Your task to perform on an android device: turn off smart reply in the gmail app Image 0: 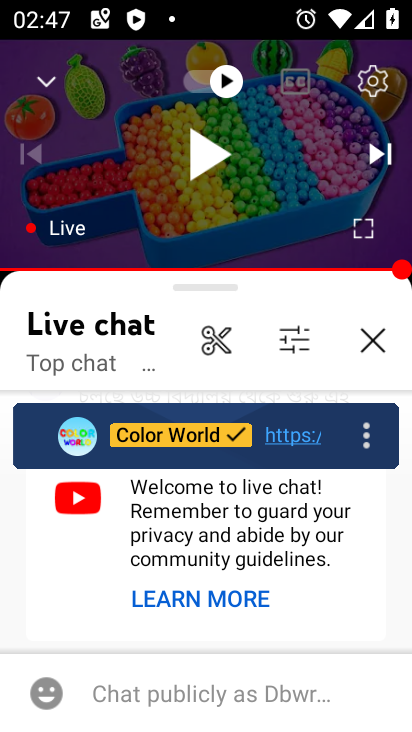
Step 0: click (370, 340)
Your task to perform on an android device: turn off smart reply in the gmail app Image 1: 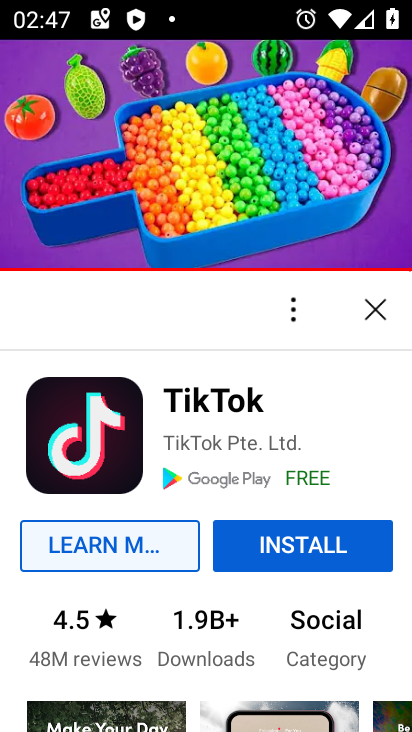
Step 1: press home button
Your task to perform on an android device: turn off smart reply in the gmail app Image 2: 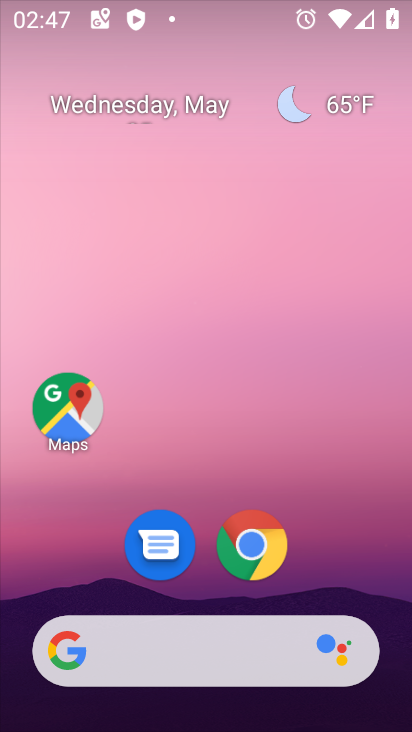
Step 2: drag from (353, 548) to (231, 65)
Your task to perform on an android device: turn off smart reply in the gmail app Image 3: 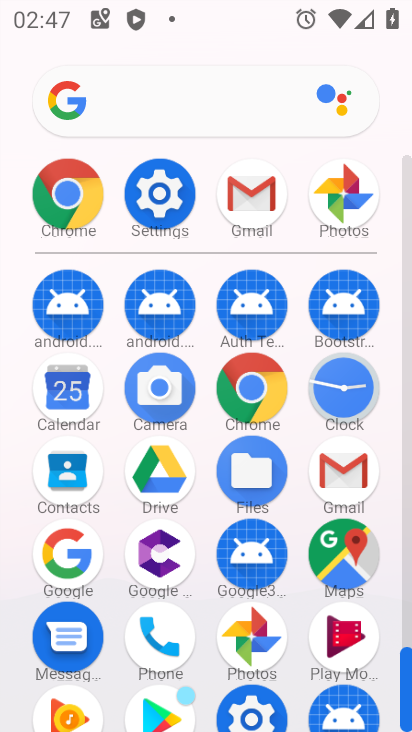
Step 3: click (178, 201)
Your task to perform on an android device: turn off smart reply in the gmail app Image 4: 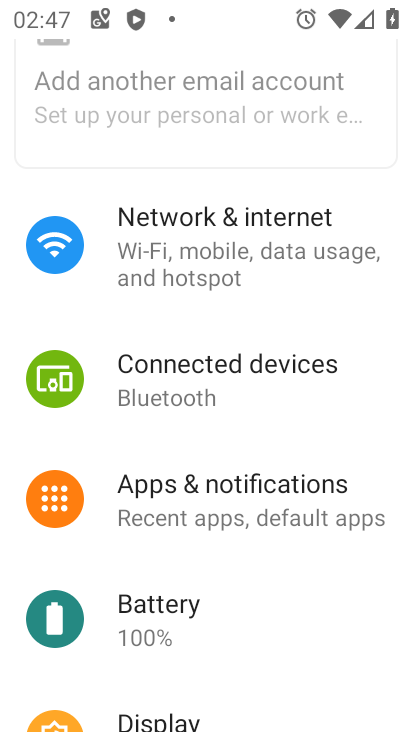
Step 4: press home button
Your task to perform on an android device: turn off smart reply in the gmail app Image 5: 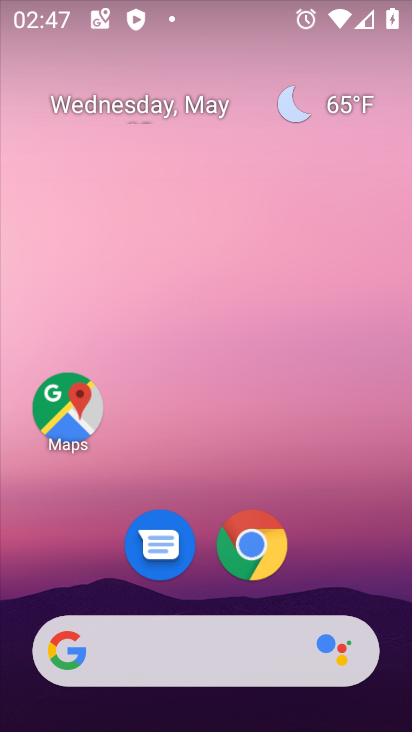
Step 5: drag from (337, 574) to (302, 125)
Your task to perform on an android device: turn off smart reply in the gmail app Image 6: 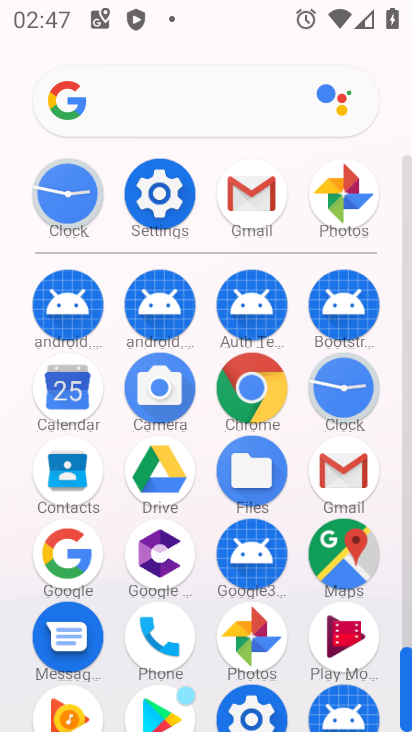
Step 6: click (263, 181)
Your task to perform on an android device: turn off smart reply in the gmail app Image 7: 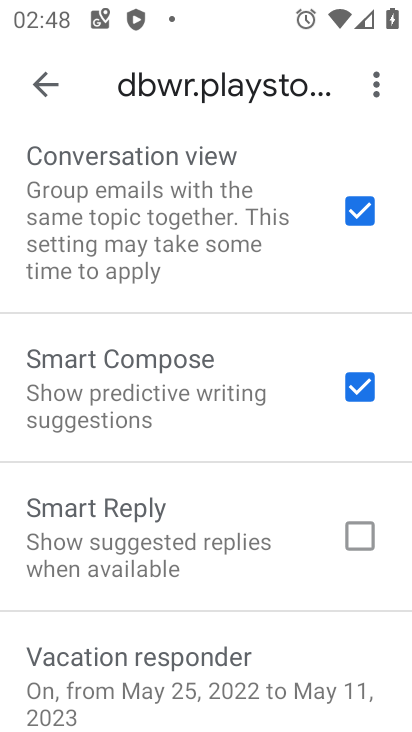
Step 7: task complete